Your task to perform on an android device: Open the calendar app, open the side menu, and click the "Day" option Image 0: 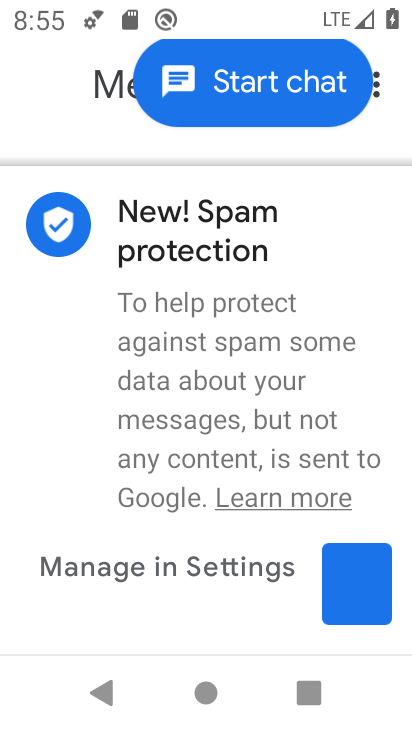
Step 0: press home button
Your task to perform on an android device: Open the calendar app, open the side menu, and click the "Day" option Image 1: 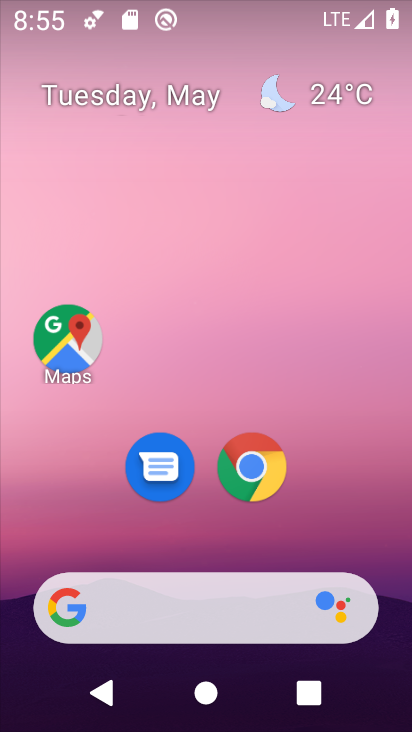
Step 1: drag from (387, 656) to (377, 253)
Your task to perform on an android device: Open the calendar app, open the side menu, and click the "Day" option Image 2: 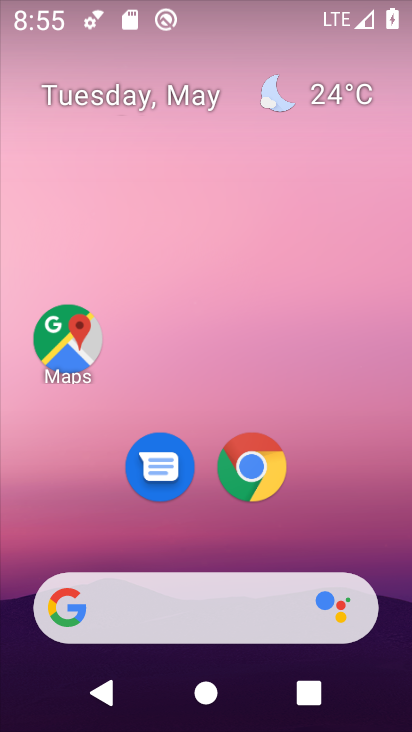
Step 2: drag from (393, 680) to (344, 192)
Your task to perform on an android device: Open the calendar app, open the side menu, and click the "Day" option Image 3: 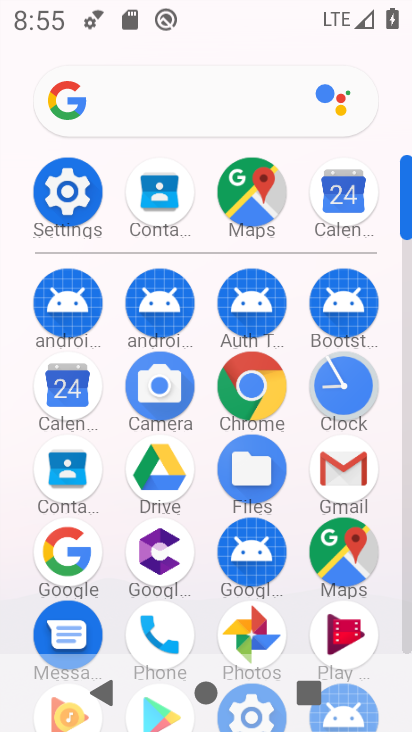
Step 3: click (59, 389)
Your task to perform on an android device: Open the calendar app, open the side menu, and click the "Day" option Image 4: 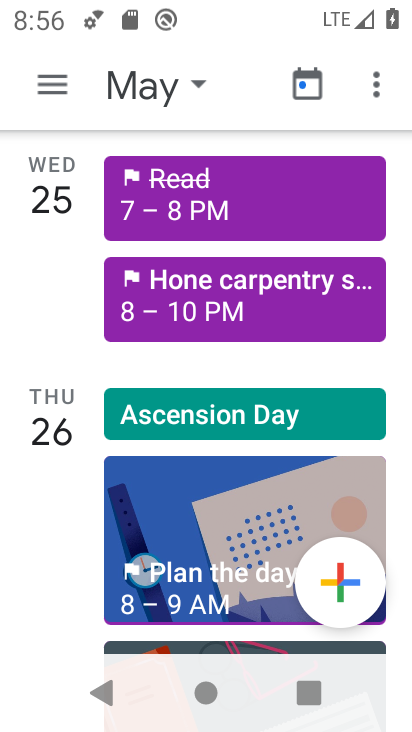
Step 4: click (194, 84)
Your task to perform on an android device: Open the calendar app, open the side menu, and click the "Day" option Image 5: 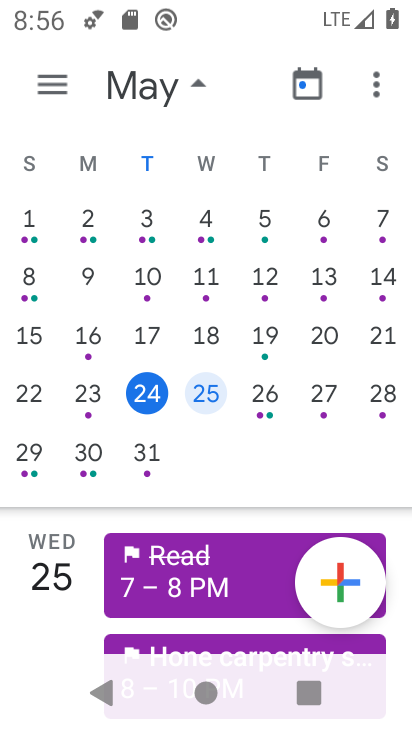
Step 5: click (48, 88)
Your task to perform on an android device: Open the calendar app, open the side menu, and click the "Day" option Image 6: 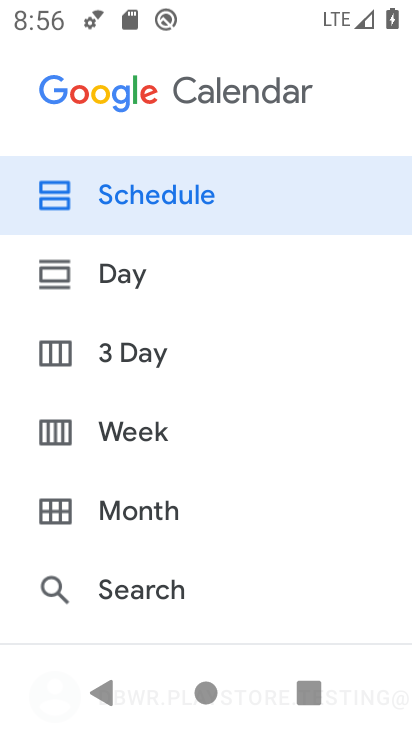
Step 6: click (118, 266)
Your task to perform on an android device: Open the calendar app, open the side menu, and click the "Day" option Image 7: 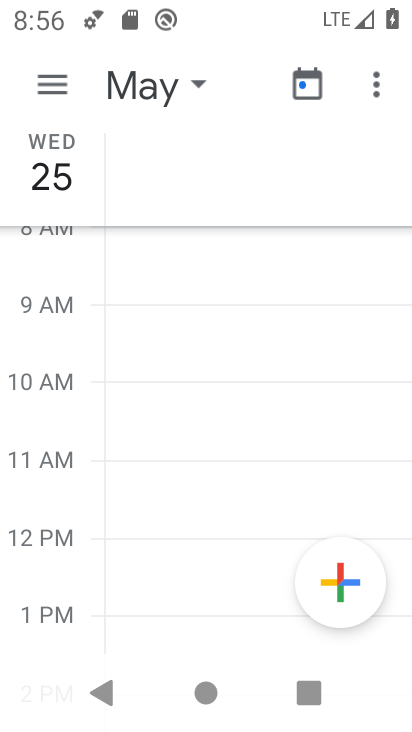
Step 7: task complete